Your task to perform on an android device: What's on my calendar today? Image 0: 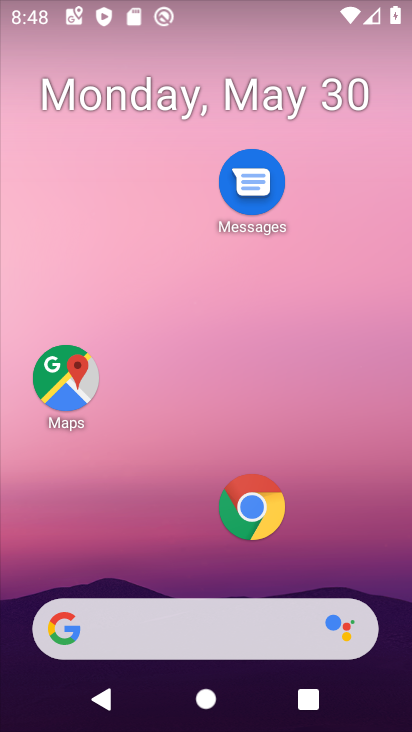
Step 0: drag from (200, 580) to (144, 253)
Your task to perform on an android device: What's on my calendar today? Image 1: 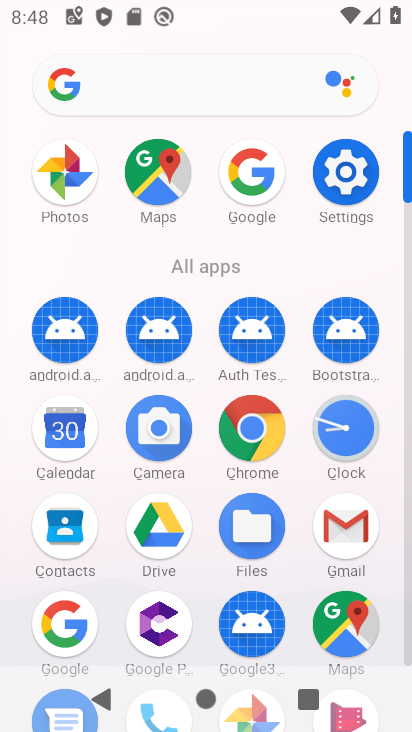
Step 1: click (75, 465)
Your task to perform on an android device: What's on my calendar today? Image 2: 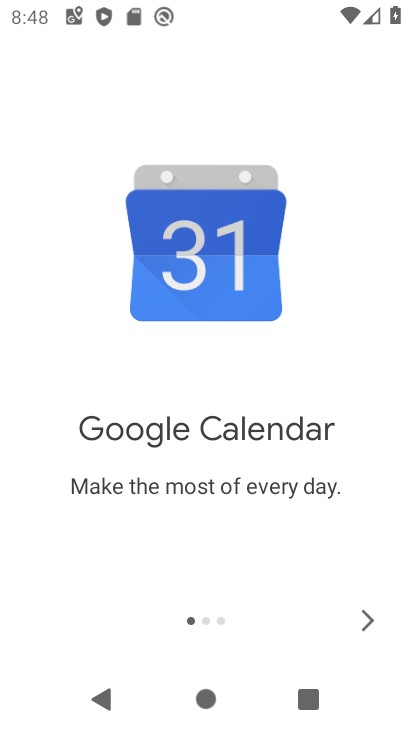
Step 2: click (361, 625)
Your task to perform on an android device: What's on my calendar today? Image 3: 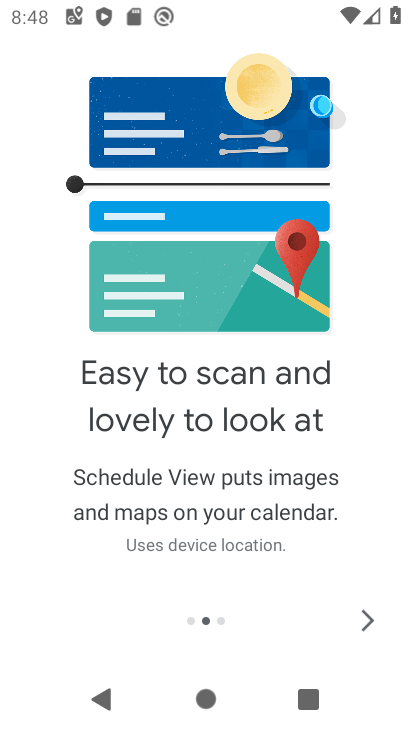
Step 3: click (361, 625)
Your task to perform on an android device: What's on my calendar today? Image 4: 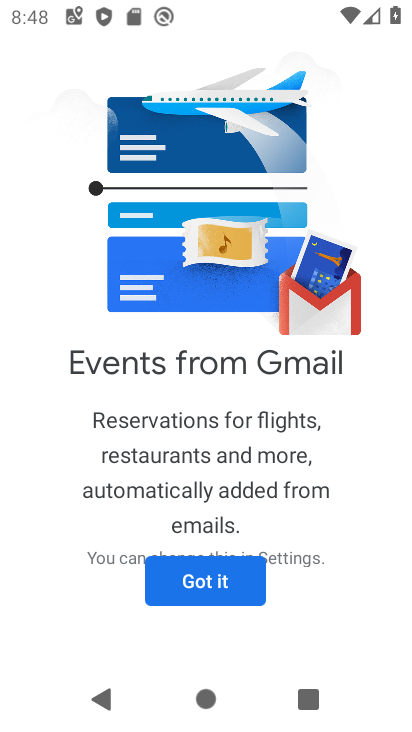
Step 4: click (194, 584)
Your task to perform on an android device: What's on my calendar today? Image 5: 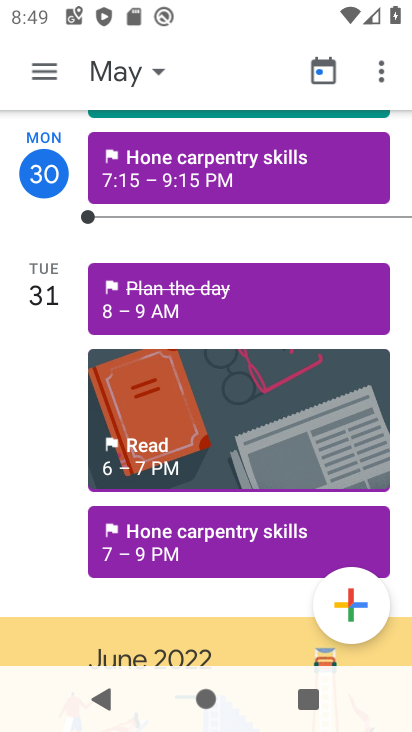
Step 5: task complete